Your task to perform on an android device: Go to accessibility settings Image 0: 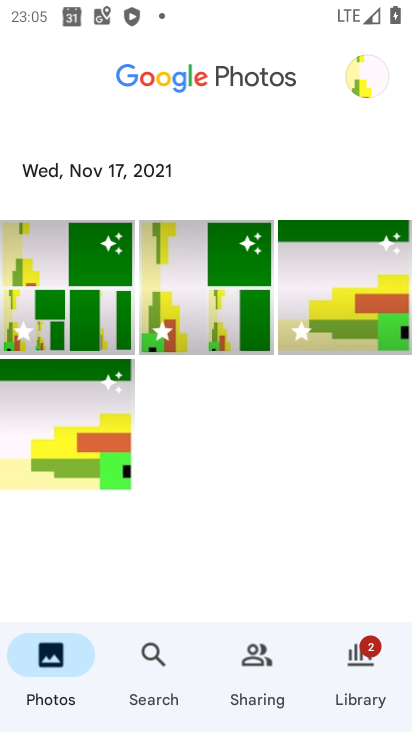
Step 0: press home button
Your task to perform on an android device: Go to accessibility settings Image 1: 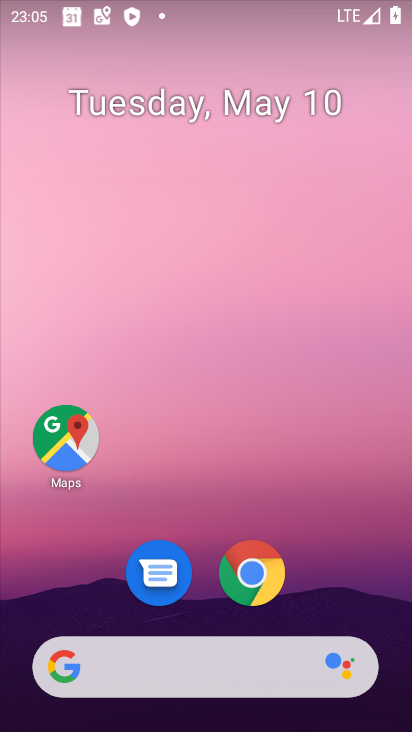
Step 1: drag from (323, 567) to (229, 79)
Your task to perform on an android device: Go to accessibility settings Image 2: 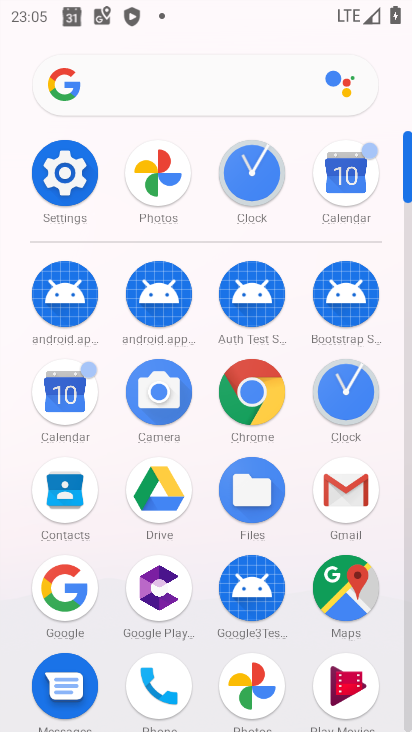
Step 2: click (80, 172)
Your task to perform on an android device: Go to accessibility settings Image 3: 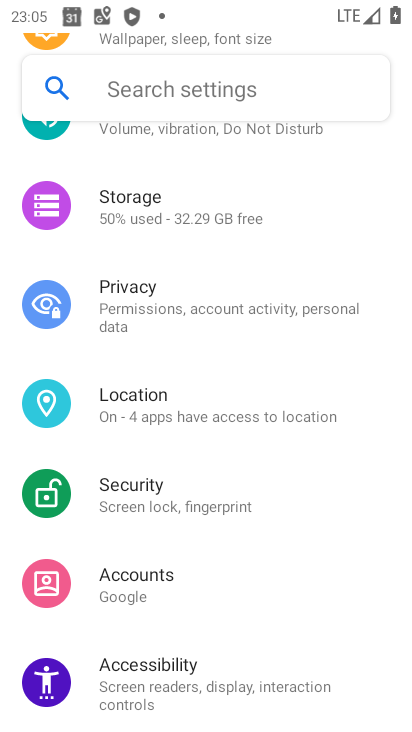
Step 3: click (138, 662)
Your task to perform on an android device: Go to accessibility settings Image 4: 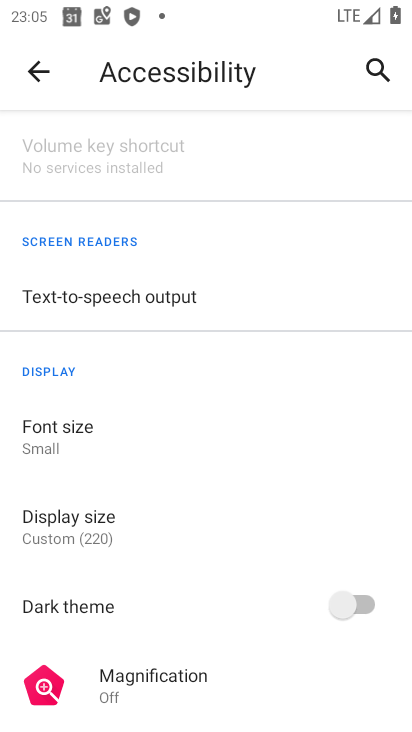
Step 4: task complete